Your task to perform on an android device: Is it going to rain today? Image 0: 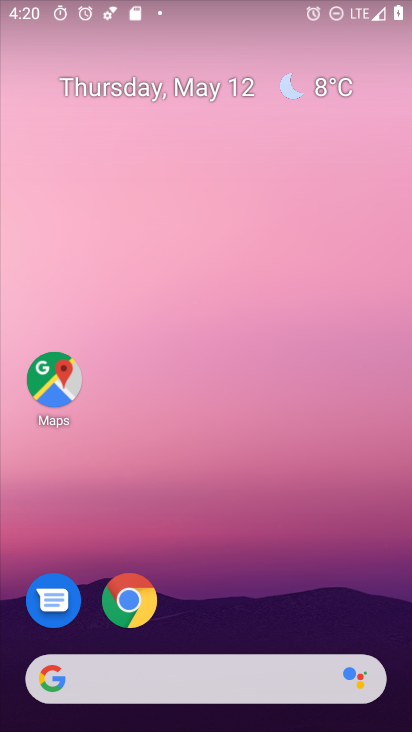
Step 0: click (287, 90)
Your task to perform on an android device: Is it going to rain today? Image 1: 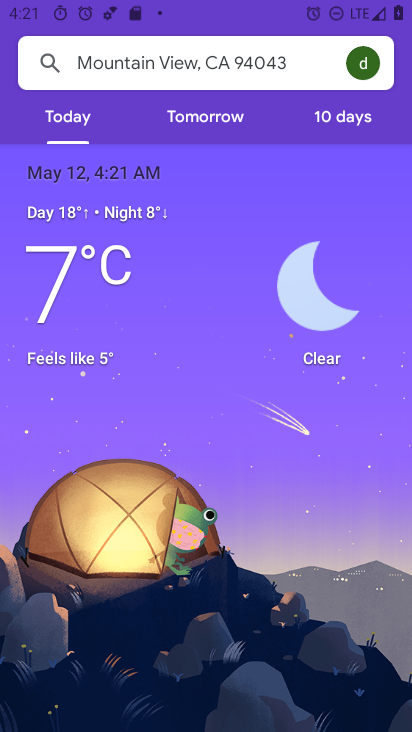
Step 1: task complete